Your task to perform on an android device: remove spam from my inbox in the gmail app Image 0: 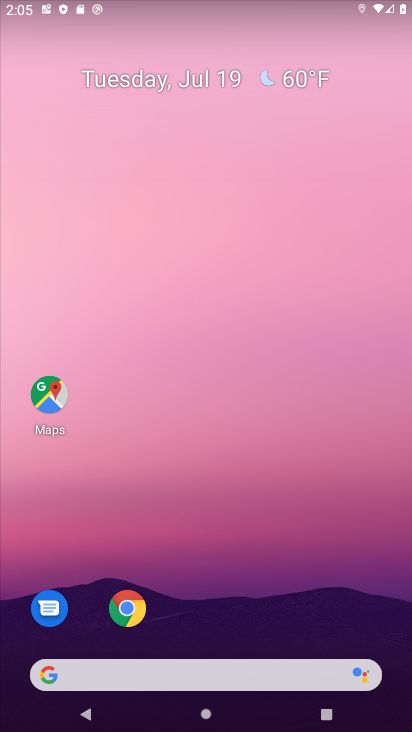
Step 0: drag from (313, 579) to (251, 5)
Your task to perform on an android device: remove spam from my inbox in the gmail app Image 1: 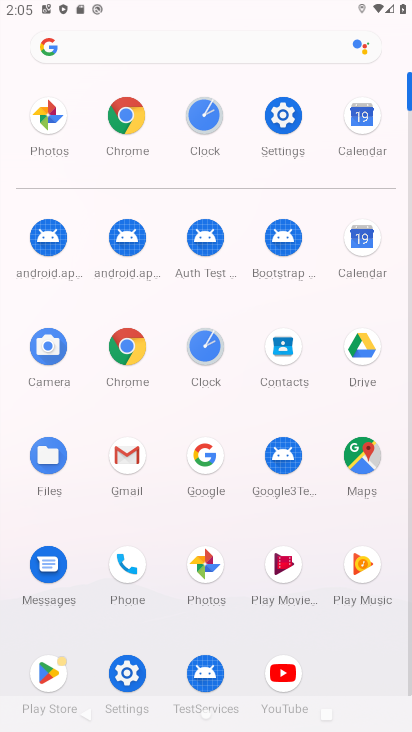
Step 1: click (139, 453)
Your task to perform on an android device: remove spam from my inbox in the gmail app Image 2: 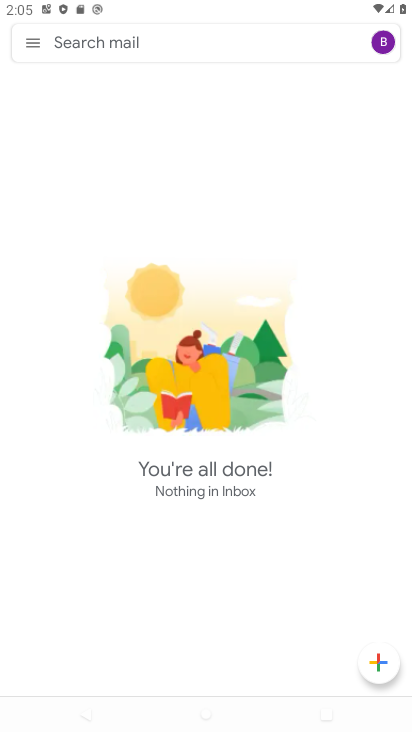
Step 2: click (26, 37)
Your task to perform on an android device: remove spam from my inbox in the gmail app Image 3: 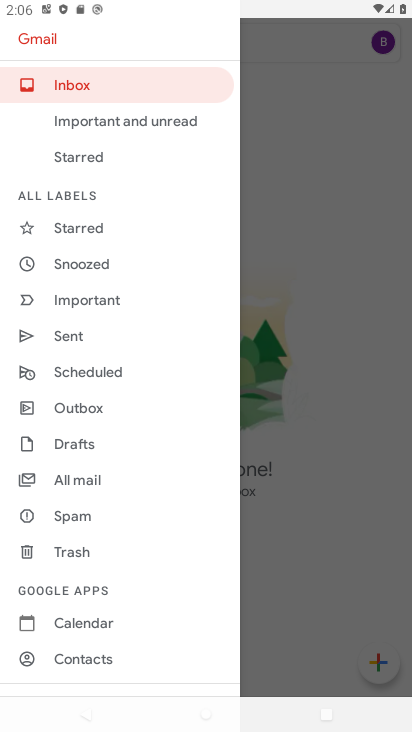
Step 3: click (90, 513)
Your task to perform on an android device: remove spam from my inbox in the gmail app Image 4: 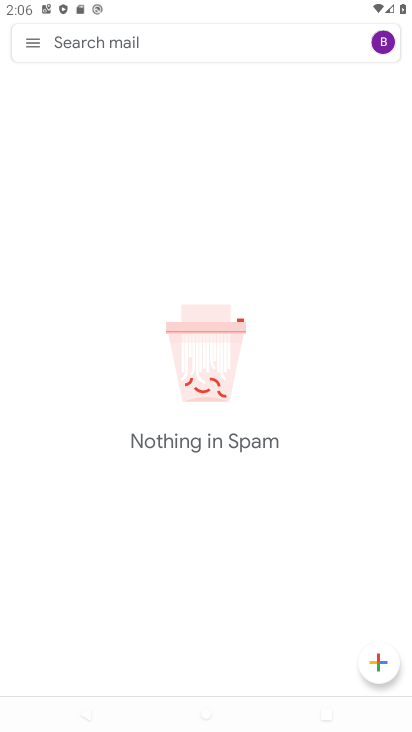
Step 4: task complete